Your task to perform on an android device: Open display settings Image 0: 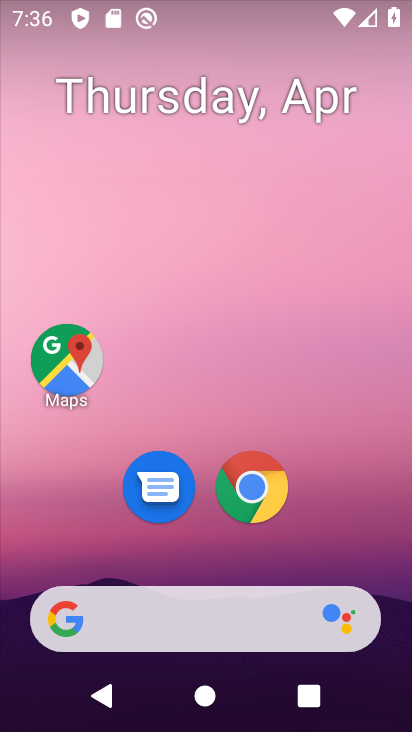
Step 0: drag from (348, 568) to (251, 146)
Your task to perform on an android device: Open display settings Image 1: 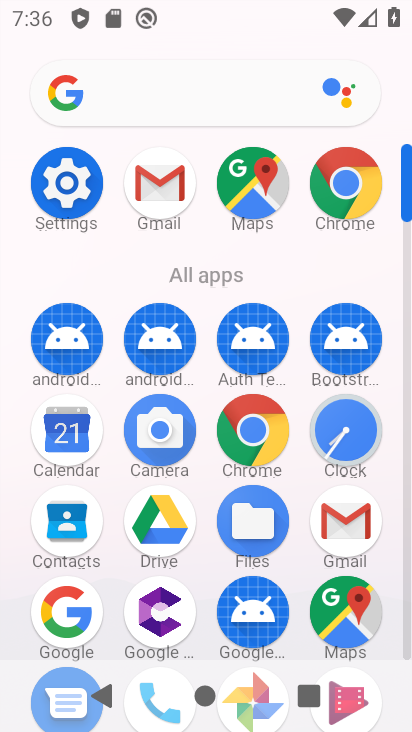
Step 1: click (65, 166)
Your task to perform on an android device: Open display settings Image 2: 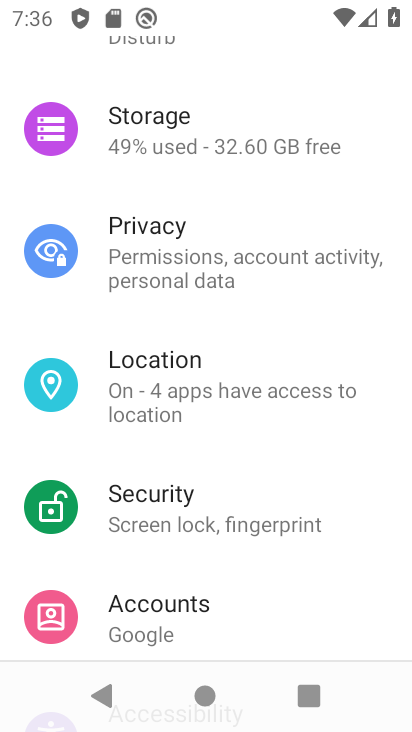
Step 2: drag from (174, 441) to (166, 176)
Your task to perform on an android device: Open display settings Image 3: 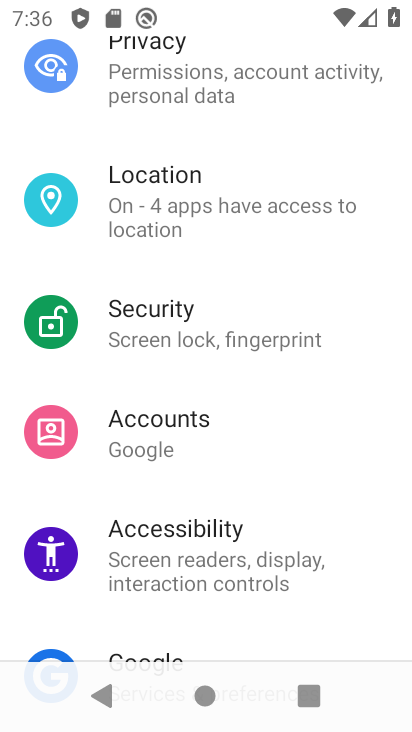
Step 3: drag from (166, 176) to (261, 615)
Your task to perform on an android device: Open display settings Image 4: 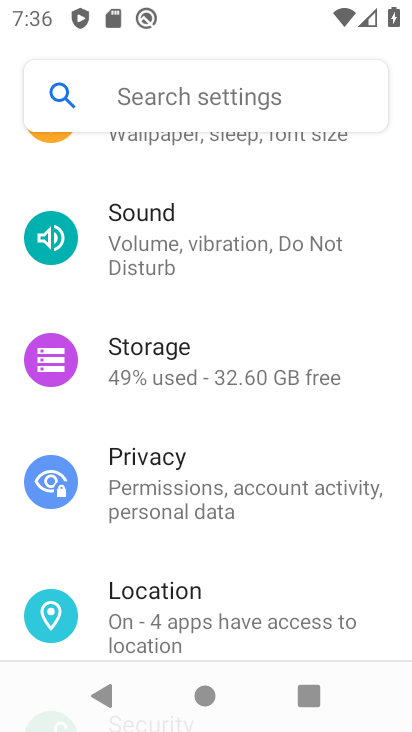
Step 4: drag from (266, 361) to (272, 627)
Your task to perform on an android device: Open display settings Image 5: 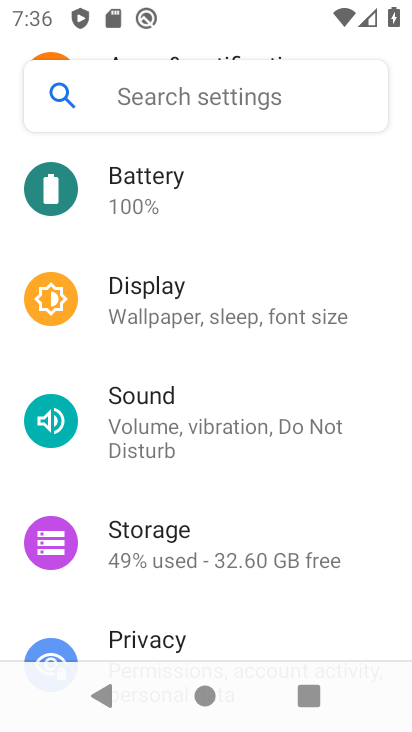
Step 5: click (223, 292)
Your task to perform on an android device: Open display settings Image 6: 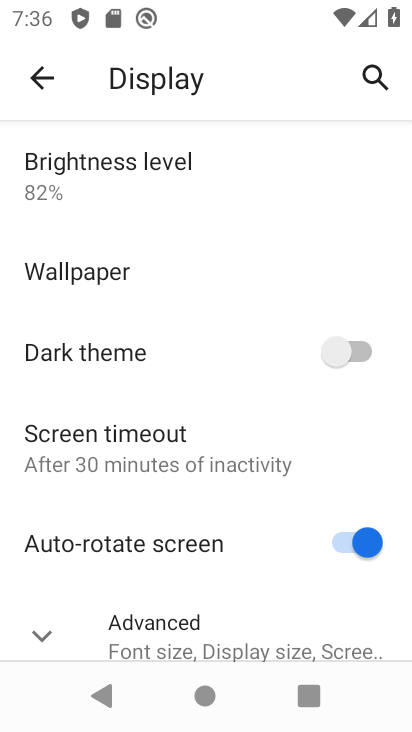
Step 6: task complete